Your task to perform on an android device: Turn off the flashlight Image 0: 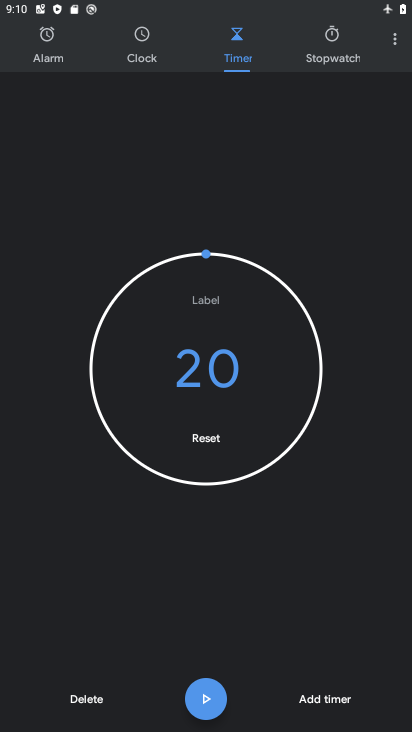
Step 0: press home button
Your task to perform on an android device: Turn off the flashlight Image 1: 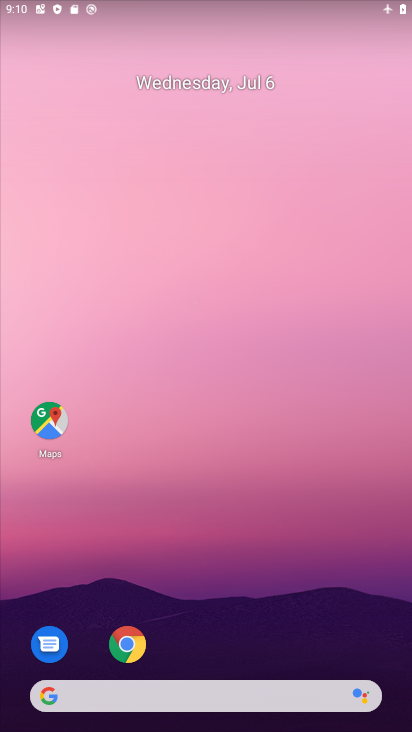
Step 1: drag from (210, 633) to (214, 125)
Your task to perform on an android device: Turn off the flashlight Image 2: 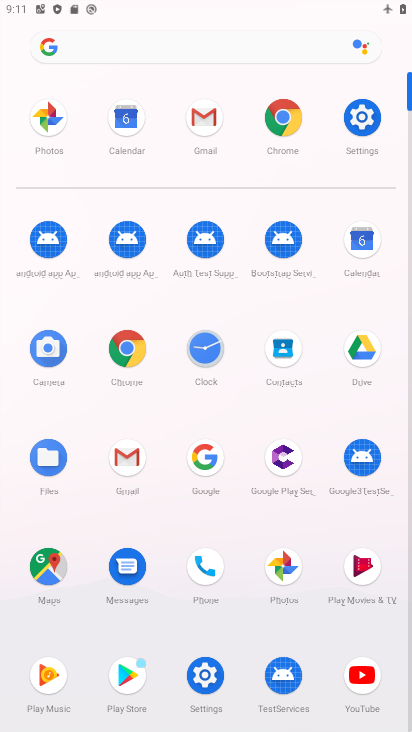
Step 2: click (354, 133)
Your task to perform on an android device: Turn off the flashlight Image 3: 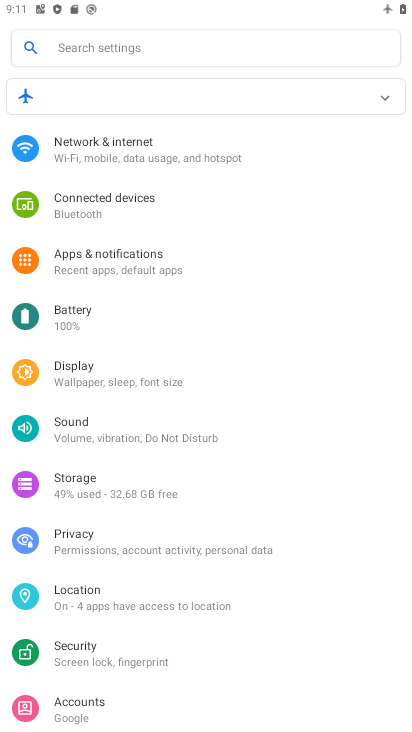
Step 3: task complete